Your task to perform on an android device: change timer sound Image 0: 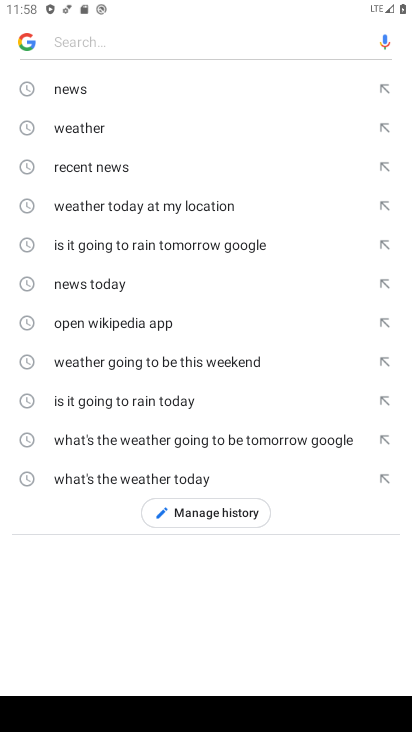
Step 0: press home button
Your task to perform on an android device: change timer sound Image 1: 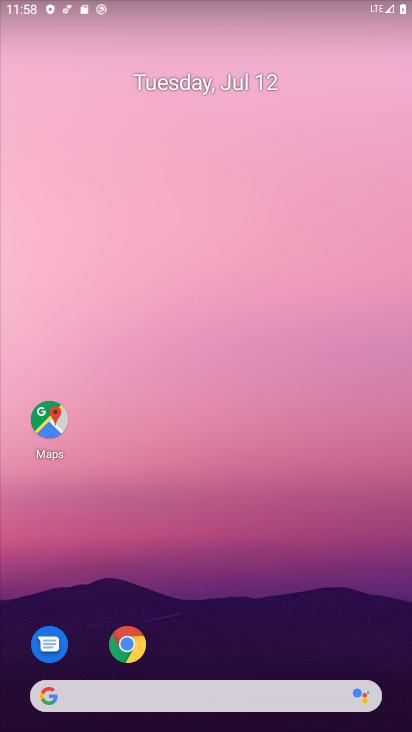
Step 1: drag from (208, 632) to (236, 71)
Your task to perform on an android device: change timer sound Image 2: 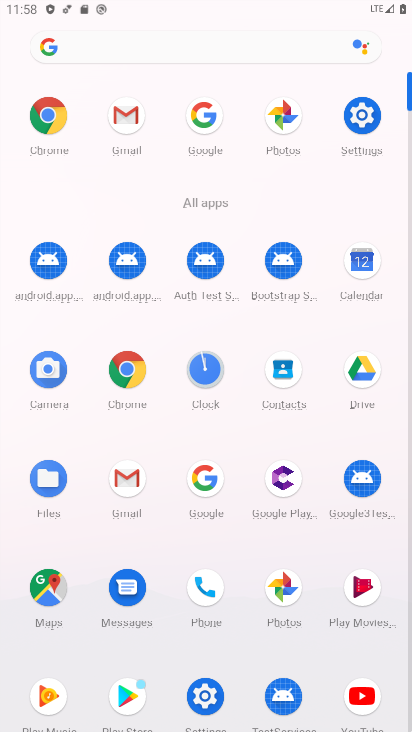
Step 2: click (200, 369)
Your task to perform on an android device: change timer sound Image 3: 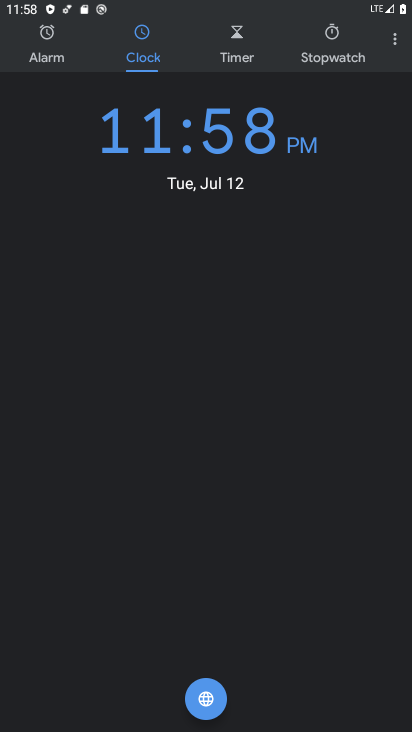
Step 3: click (388, 41)
Your task to perform on an android device: change timer sound Image 4: 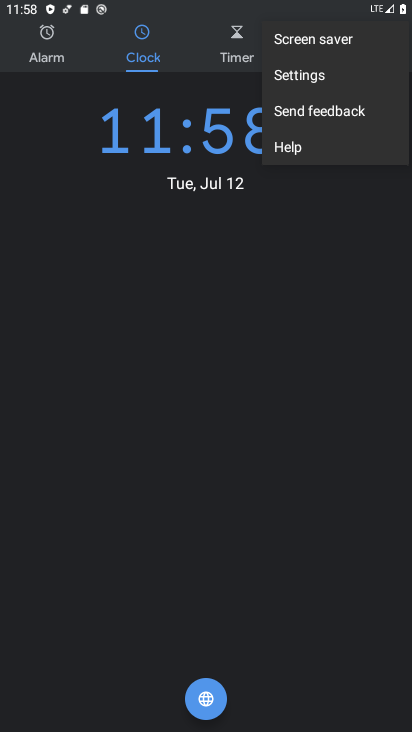
Step 4: click (310, 69)
Your task to perform on an android device: change timer sound Image 5: 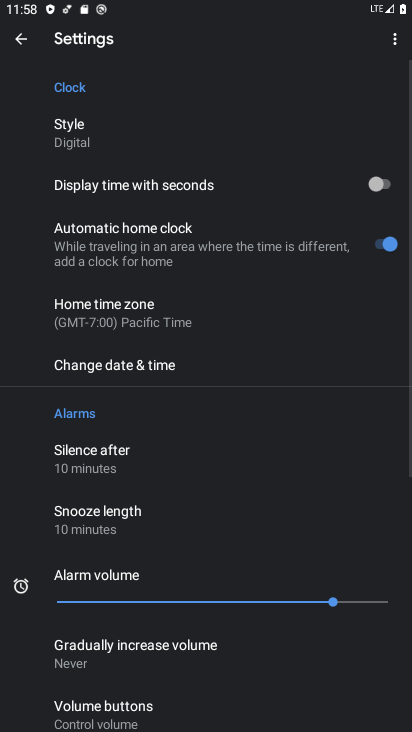
Step 5: drag from (168, 596) to (197, 162)
Your task to perform on an android device: change timer sound Image 6: 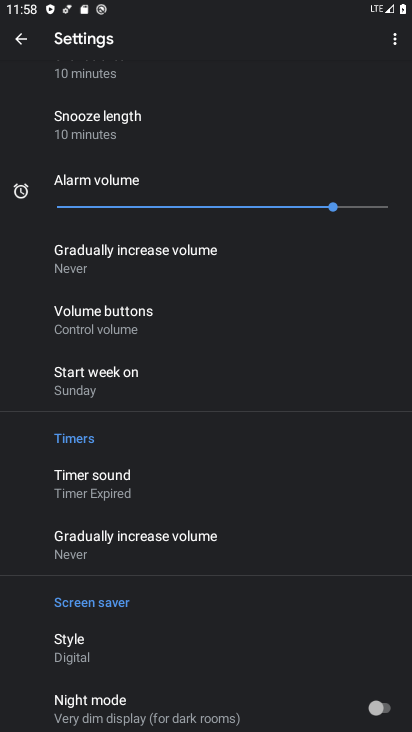
Step 6: click (99, 477)
Your task to perform on an android device: change timer sound Image 7: 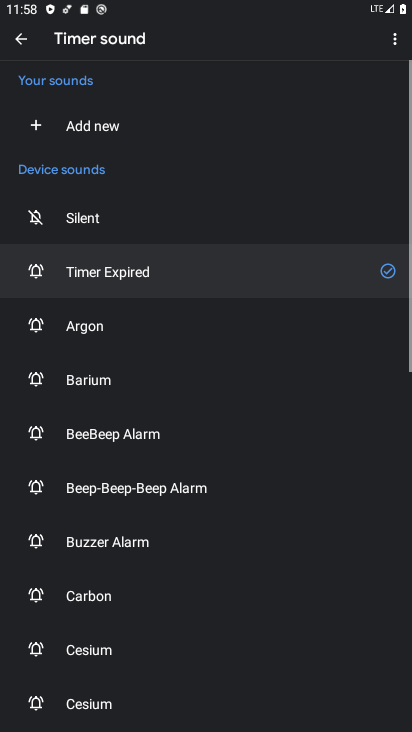
Step 7: click (104, 218)
Your task to perform on an android device: change timer sound Image 8: 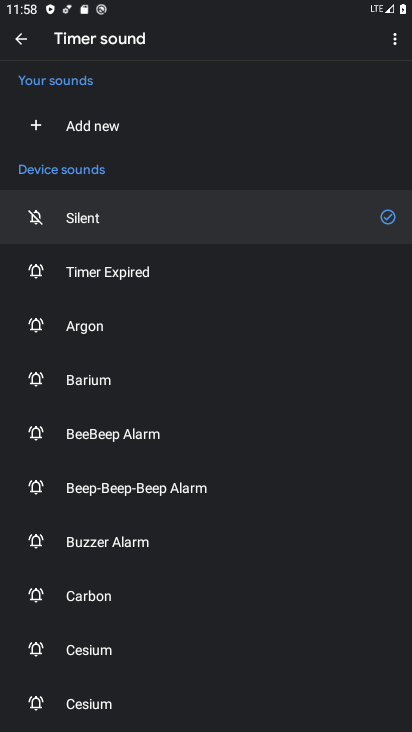
Step 8: task complete